Your task to perform on an android device: What is the recent news? Image 0: 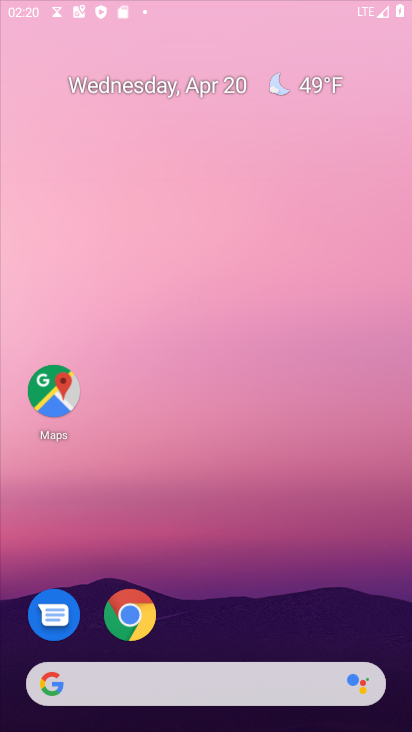
Step 0: click (300, 223)
Your task to perform on an android device: What is the recent news? Image 1: 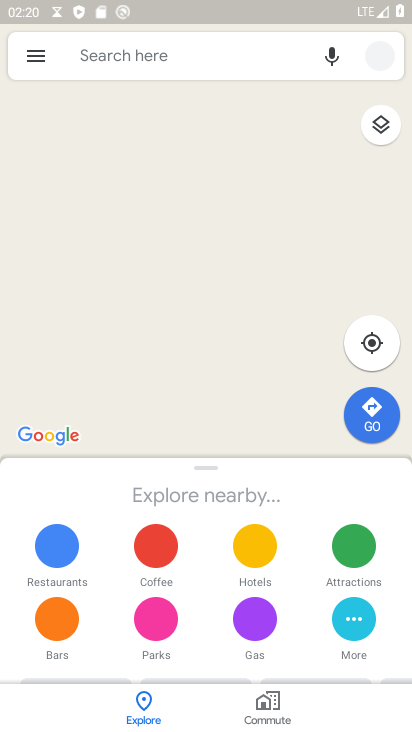
Step 1: press home button
Your task to perform on an android device: What is the recent news? Image 2: 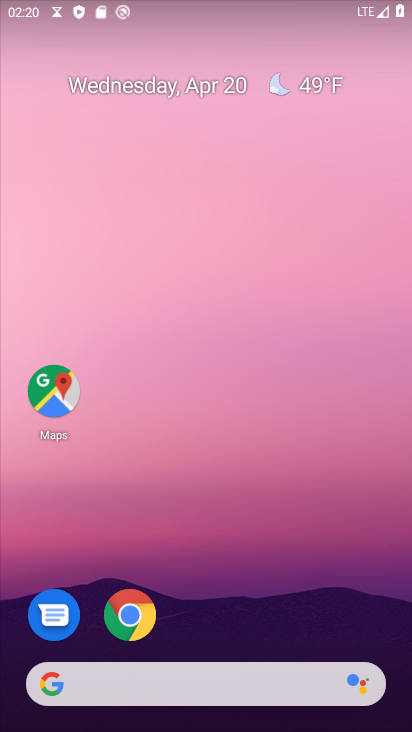
Step 2: drag from (210, 592) to (268, 196)
Your task to perform on an android device: What is the recent news? Image 3: 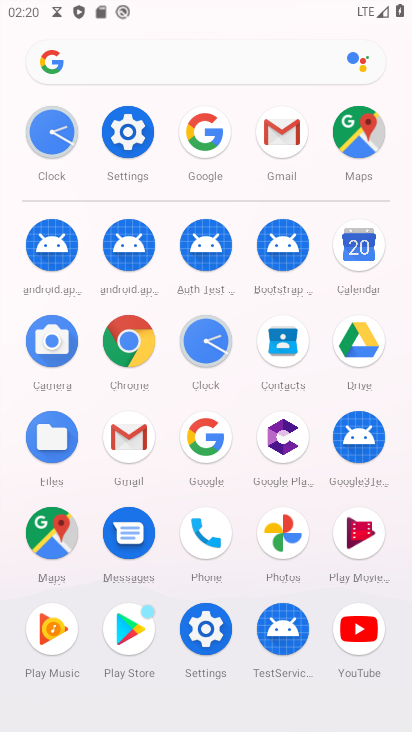
Step 3: click (202, 456)
Your task to perform on an android device: What is the recent news? Image 4: 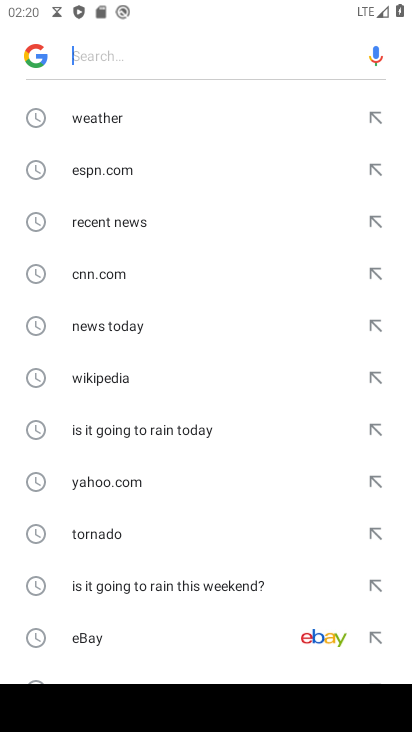
Step 4: click (30, 55)
Your task to perform on an android device: What is the recent news? Image 5: 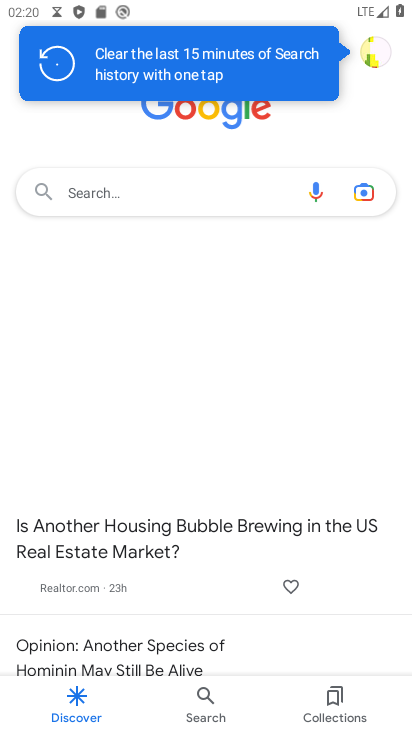
Step 5: task complete